Your task to perform on an android device: turn off notifications in google photos Image 0: 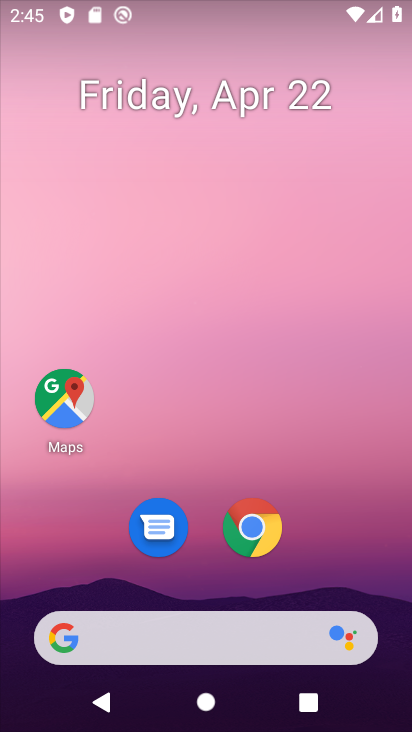
Step 0: drag from (389, 627) to (329, 51)
Your task to perform on an android device: turn off notifications in google photos Image 1: 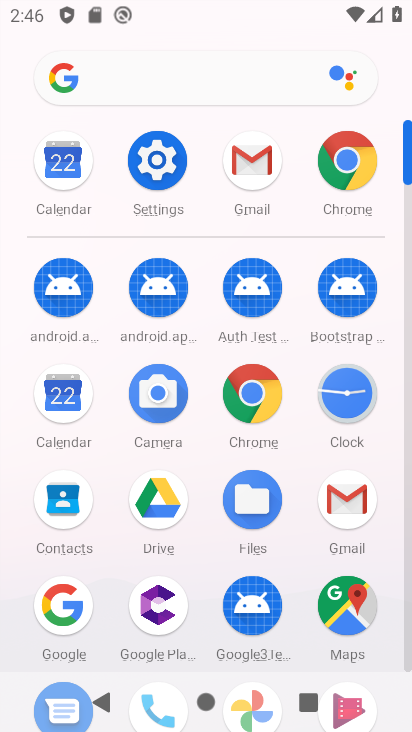
Step 1: click (411, 671)
Your task to perform on an android device: turn off notifications in google photos Image 2: 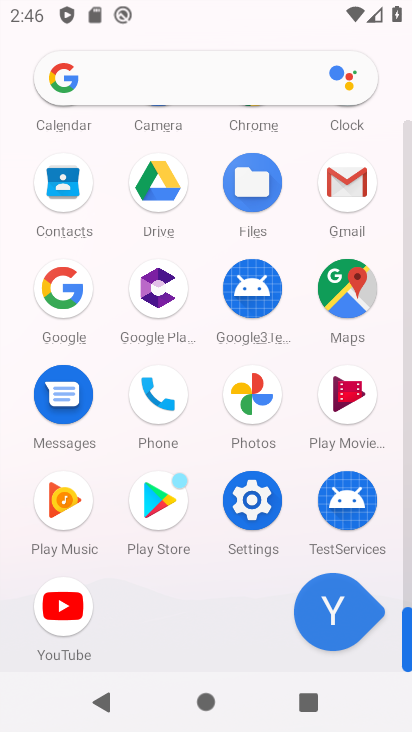
Step 2: click (406, 665)
Your task to perform on an android device: turn off notifications in google photos Image 3: 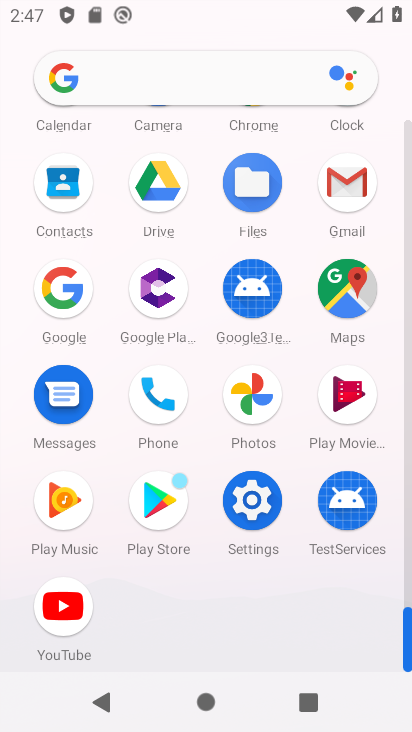
Step 3: click (251, 400)
Your task to perform on an android device: turn off notifications in google photos Image 4: 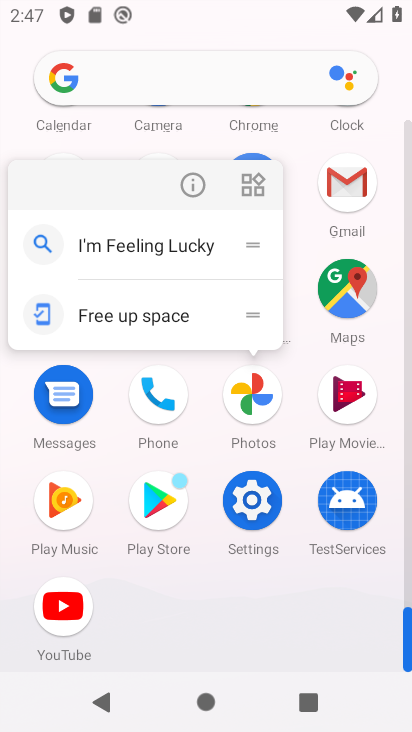
Step 4: click (251, 400)
Your task to perform on an android device: turn off notifications in google photos Image 5: 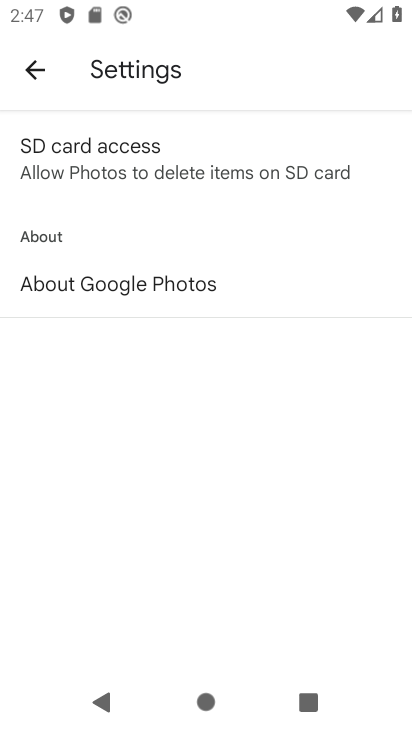
Step 5: press back button
Your task to perform on an android device: turn off notifications in google photos Image 6: 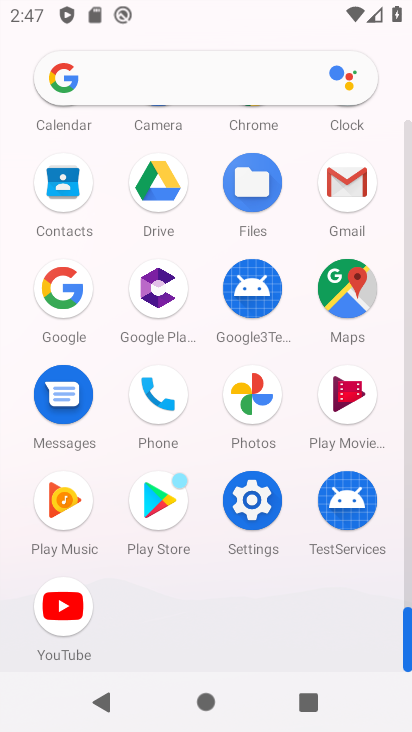
Step 6: click (229, 378)
Your task to perform on an android device: turn off notifications in google photos Image 7: 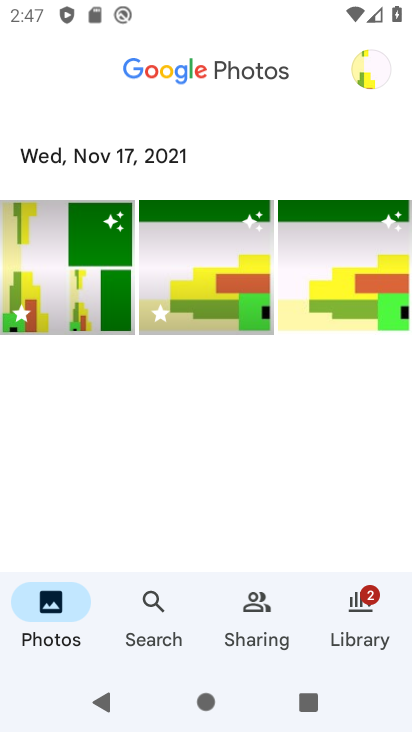
Step 7: click (367, 74)
Your task to perform on an android device: turn off notifications in google photos Image 8: 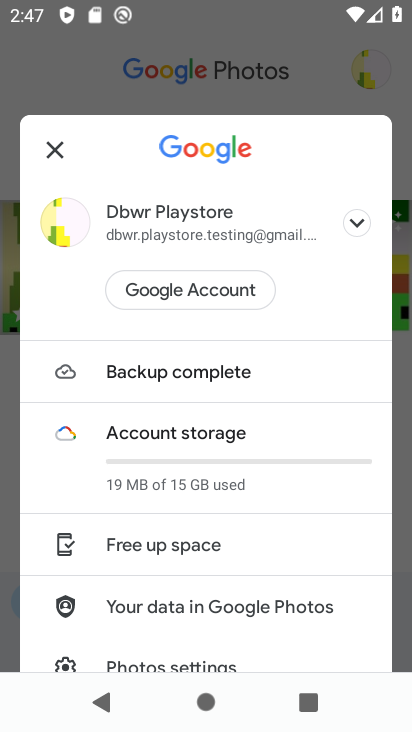
Step 8: drag from (170, 615) to (229, 219)
Your task to perform on an android device: turn off notifications in google photos Image 9: 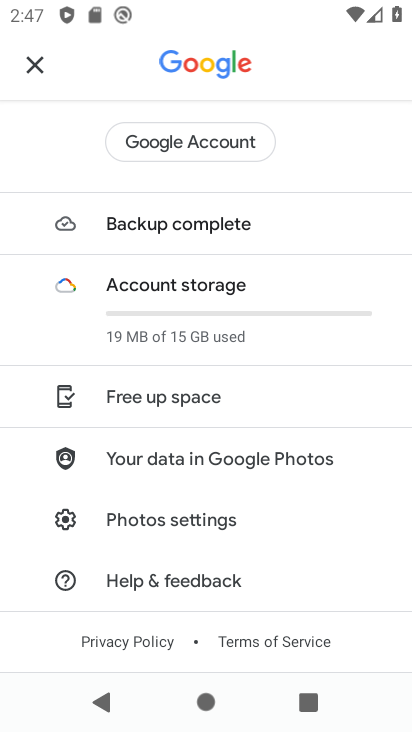
Step 9: click (166, 516)
Your task to perform on an android device: turn off notifications in google photos Image 10: 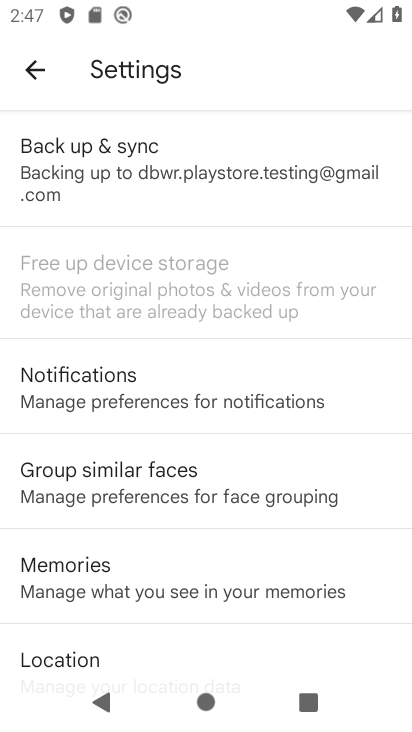
Step 10: click (229, 401)
Your task to perform on an android device: turn off notifications in google photos Image 11: 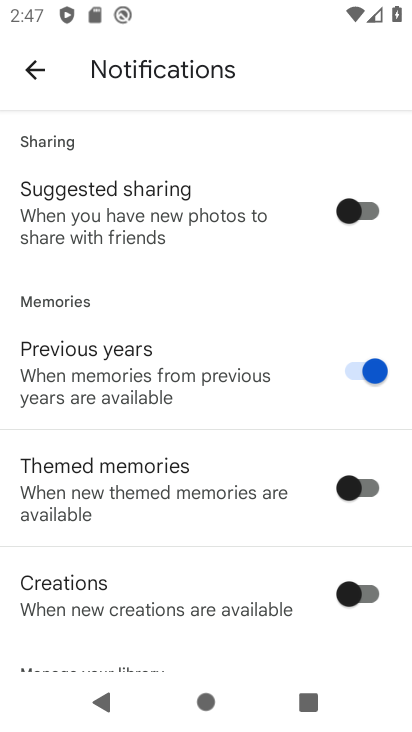
Step 11: task complete